Your task to perform on an android device: Open calendar and show me the second week of next month Image 0: 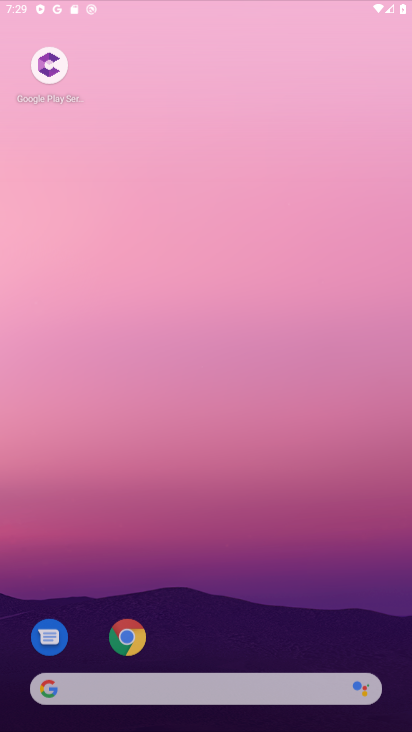
Step 0: click (197, 190)
Your task to perform on an android device: Open calendar and show me the second week of next month Image 1: 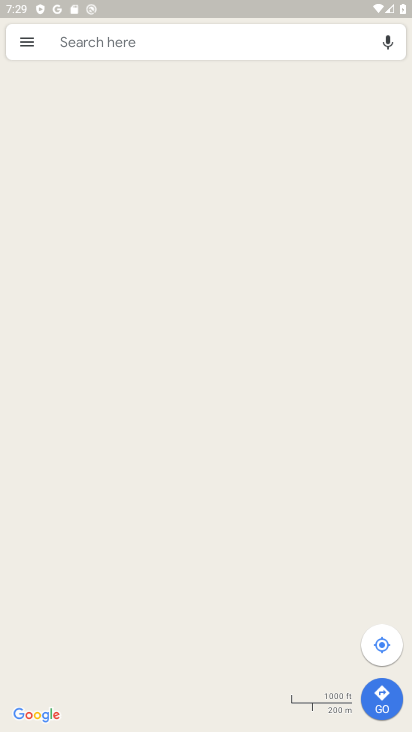
Step 1: press home button
Your task to perform on an android device: Open calendar and show me the second week of next month Image 2: 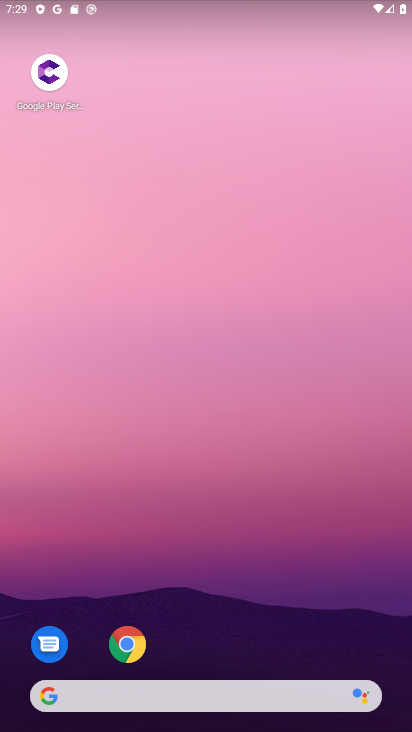
Step 2: drag from (190, 680) to (174, 363)
Your task to perform on an android device: Open calendar and show me the second week of next month Image 3: 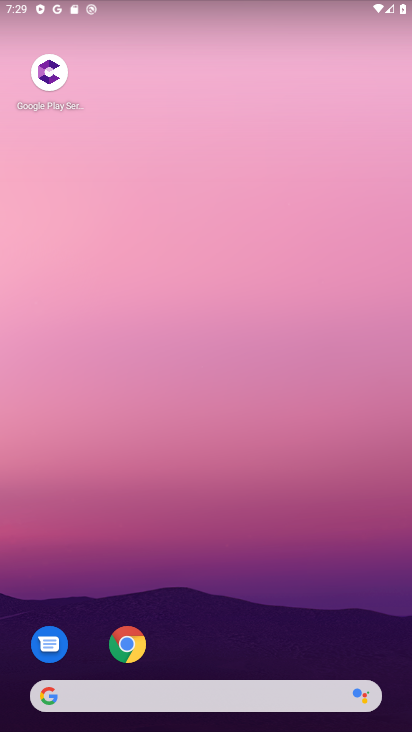
Step 3: drag from (253, 678) to (267, 139)
Your task to perform on an android device: Open calendar and show me the second week of next month Image 4: 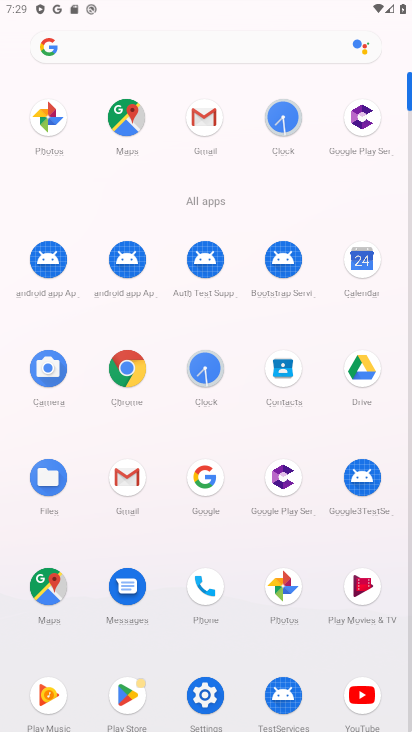
Step 4: click (355, 264)
Your task to perform on an android device: Open calendar and show me the second week of next month Image 5: 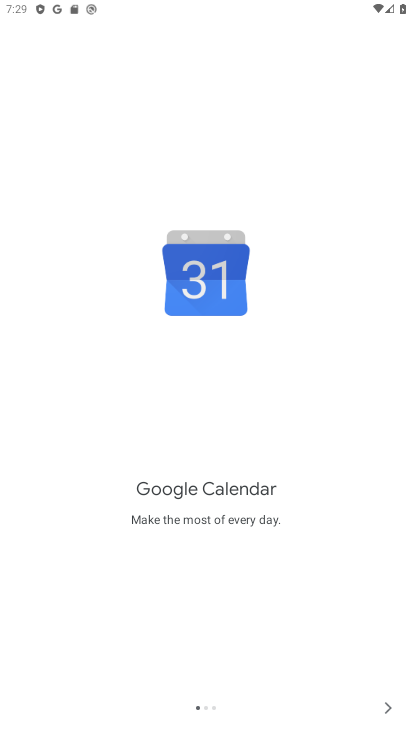
Step 5: click (393, 710)
Your task to perform on an android device: Open calendar and show me the second week of next month Image 6: 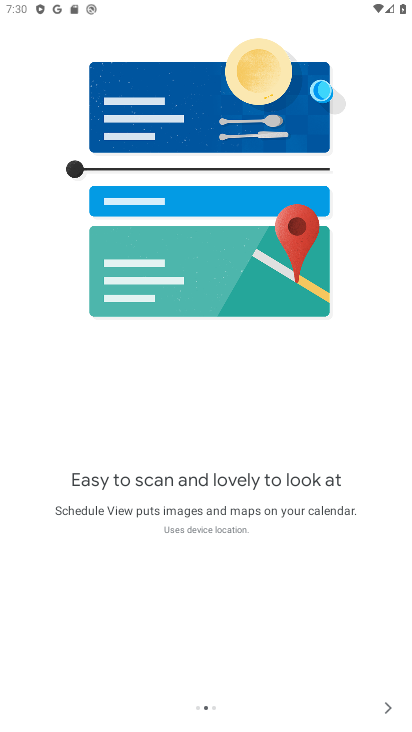
Step 6: click (393, 710)
Your task to perform on an android device: Open calendar and show me the second week of next month Image 7: 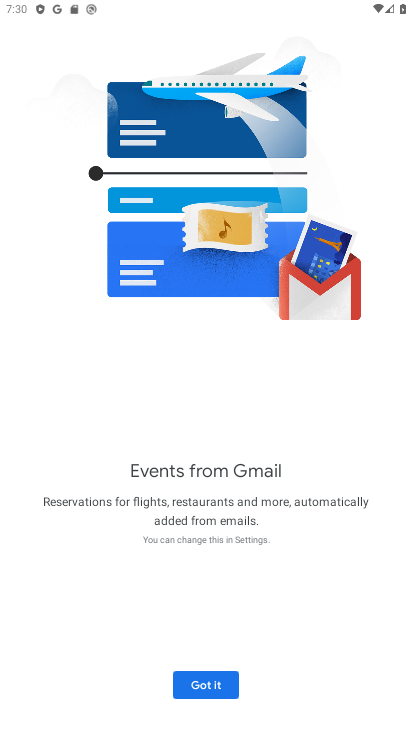
Step 7: click (214, 685)
Your task to perform on an android device: Open calendar and show me the second week of next month Image 8: 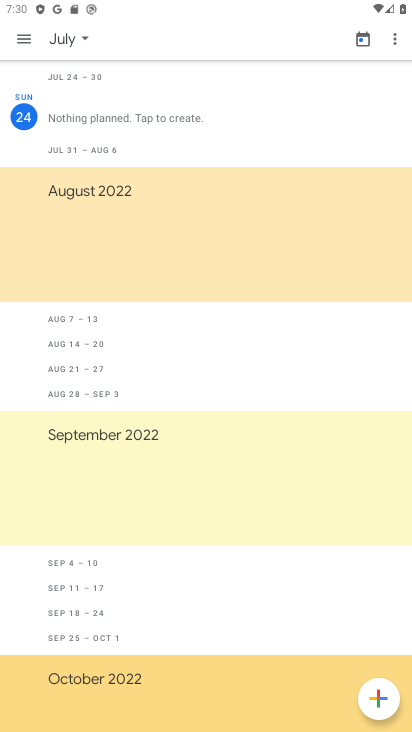
Step 8: click (65, 40)
Your task to perform on an android device: Open calendar and show me the second week of next month Image 9: 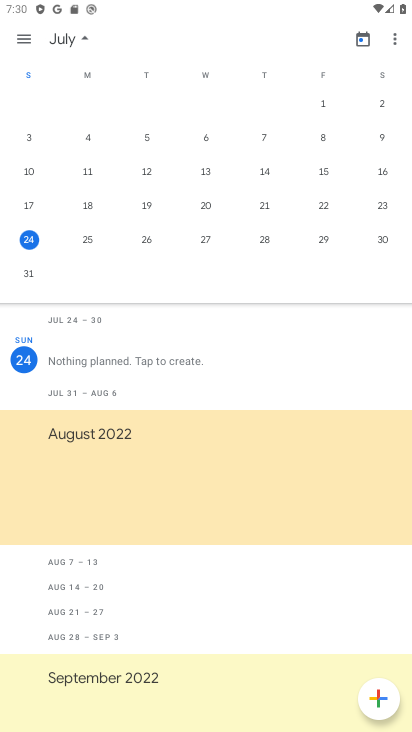
Step 9: drag from (359, 188) to (1, 242)
Your task to perform on an android device: Open calendar and show me the second week of next month Image 10: 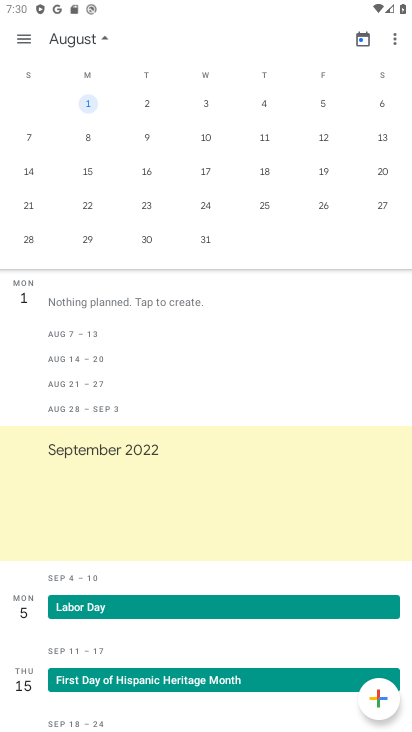
Step 10: click (30, 129)
Your task to perform on an android device: Open calendar and show me the second week of next month Image 11: 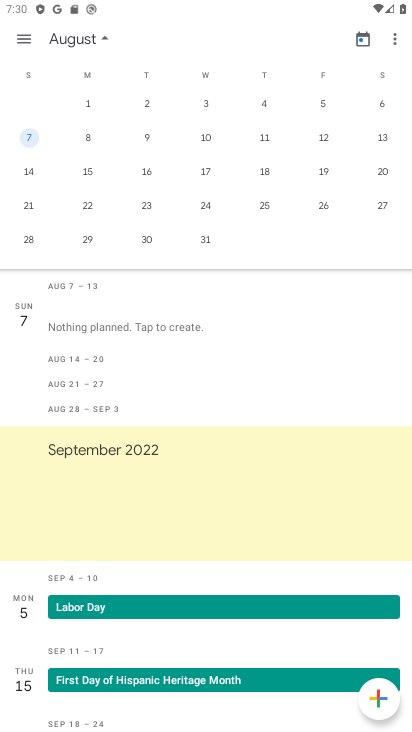
Step 11: task complete